Your task to perform on an android device: toggle show notifications on the lock screen Image 0: 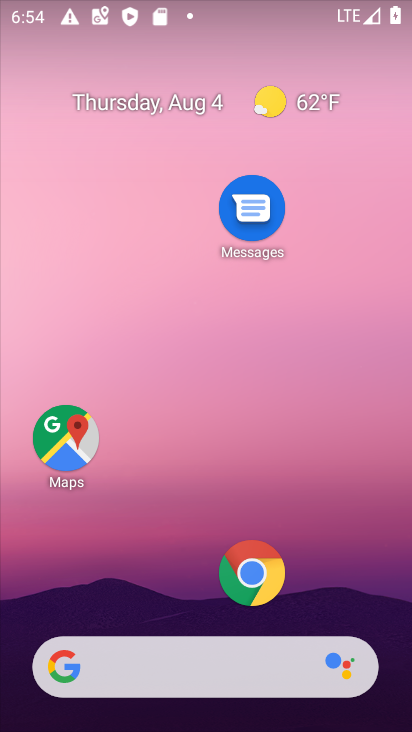
Step 0: press home button
Your task to perform on an android device: toggle show notifications on the lock screen Image 1: 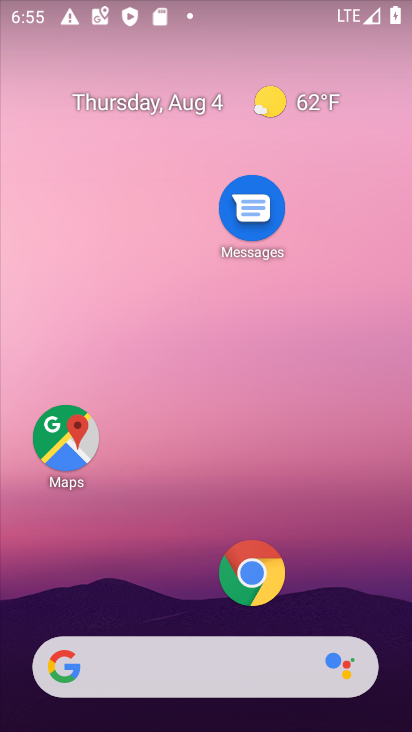
Step 1: drag from (168, 531) to (203, 164)
Your task to perform on an android device: toggle show notifications on the lock screen Image 2: 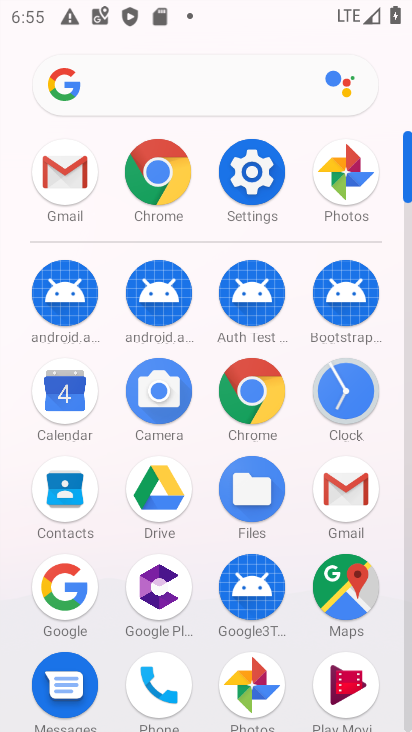
Step 2: click (241, 170)
Your task to perform on an android device: toggle show notifications on the lock screen Image 3: 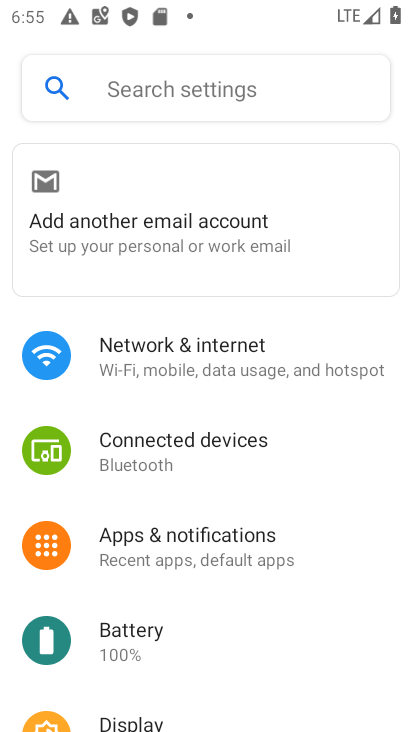
Step 3: click (183, 552)
Your task to perform on an android device: toggle show notifications on the lock screen Image 4: 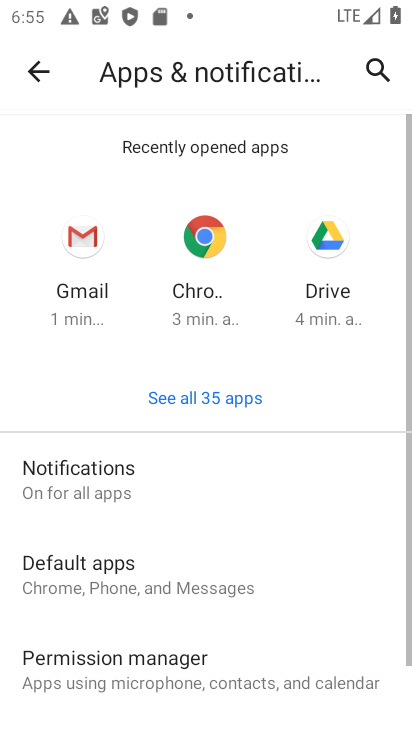
Step 4: click (77, 477)
Your task to perform on an android device: toggle show notifications on the lock screen Image 5: 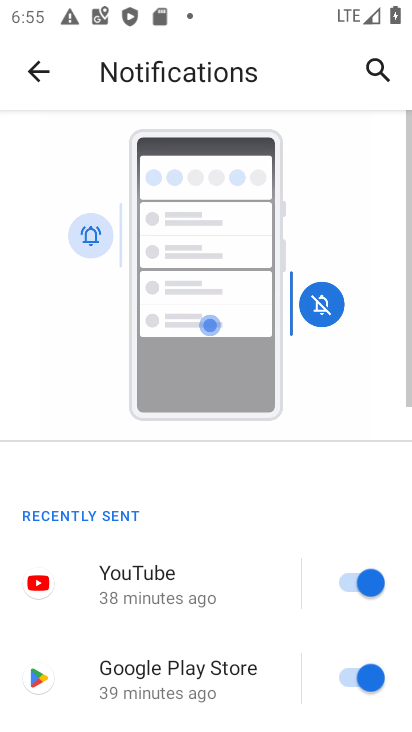
Step 5: drag from (313, 549) to (342, 177)
Your task to perform on an android device: toggle show notifications on the lock screen Image 6: 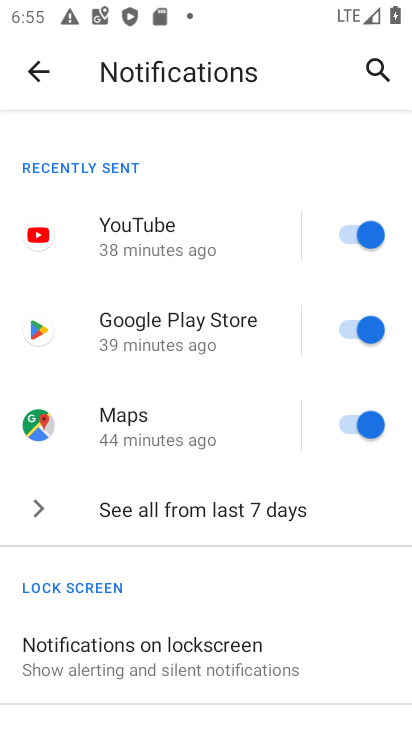
Step 6: drag from (344, 671) to (383, 406)
Your task to perform on an android device: toggle show notifications on the lock screen Image 7: 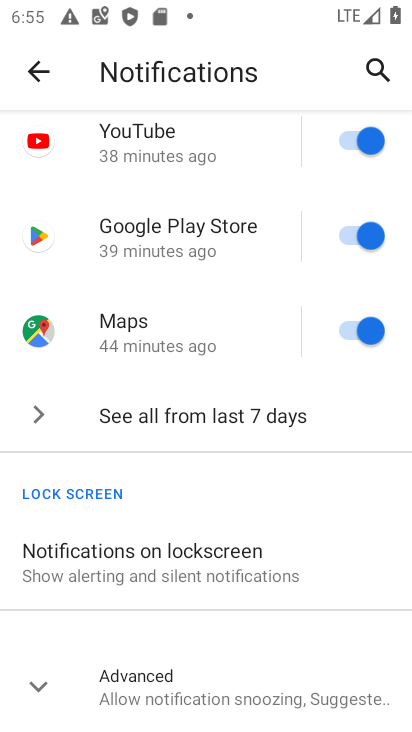
Step 7: click (176, 561)
Your task to perform on an android device: toggle show notifications on the lock screen Image 8: 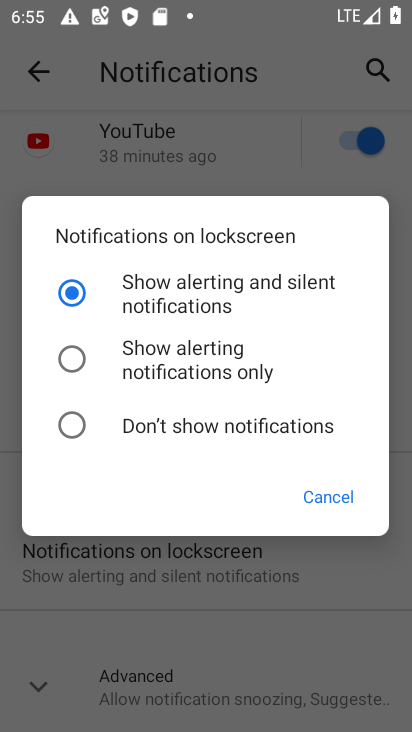
Step 8: task complete